Your task to perform on an android device: delete location history Image 0: 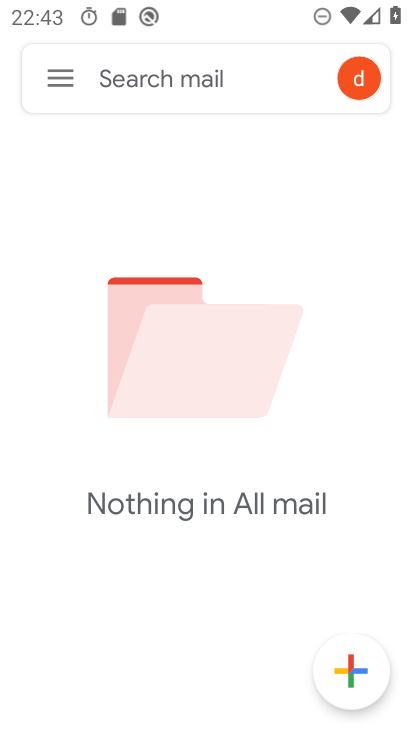
Step 0: press home button
Your task to perform on an android device: delete location history Image 1: 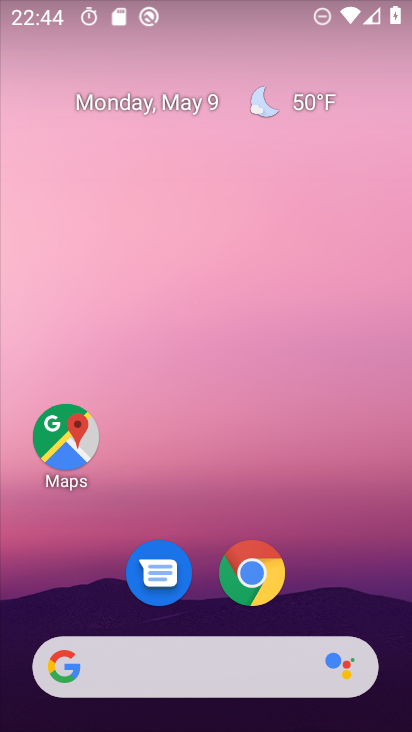
Step 1: drag from (320, 543) to (334, 51)
Your task to perform on an android device: delete location history Image 2: 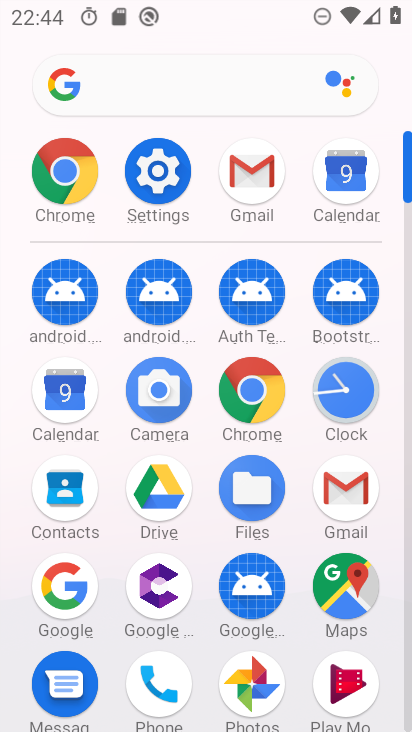
Step 2: click (365, 562)
Your task to perform on an android device: delete location history Image 3: 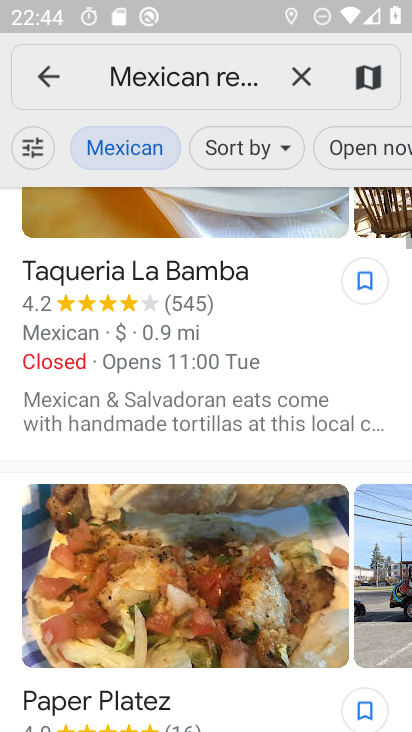
Step 3: click (44, 73)
Your task to perform on an android device: delete location history Image 4: 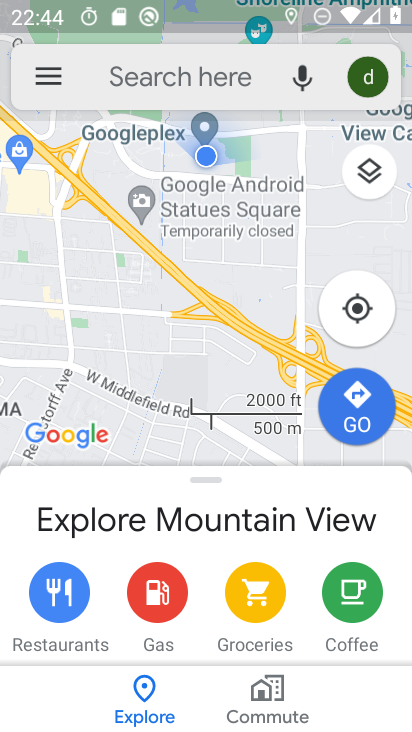
Step 4: click (46, 73)
Your task to perform on an android device: delete location history Image 5: 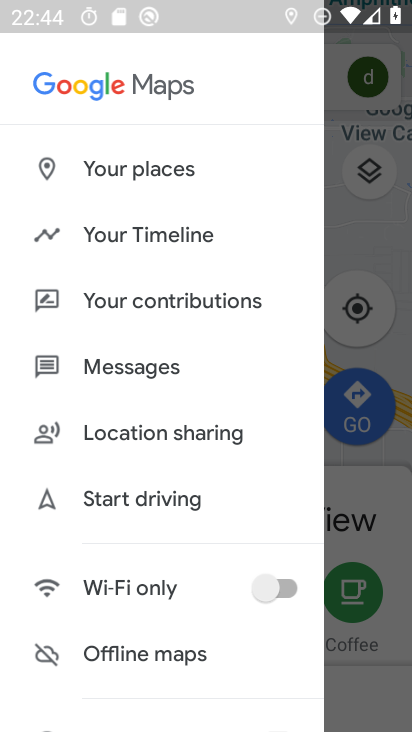
Step 5: drag from (200, 549) to (238, 63)
Your task to perform on an android device: delete location history Image 6: 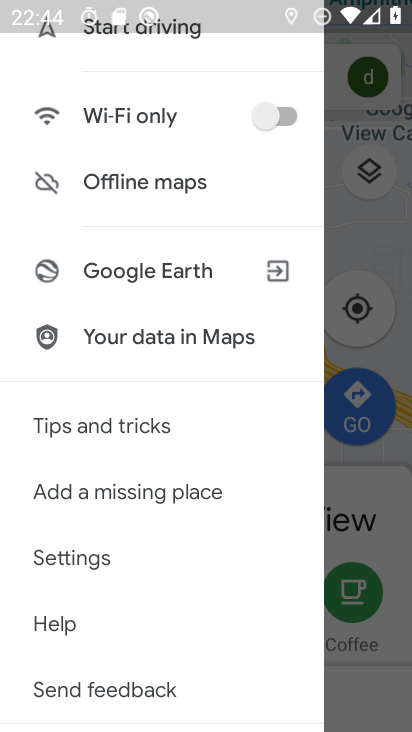
Step 6: click (100, 558)
Your task to perform on an android device: delete location history Image 7: 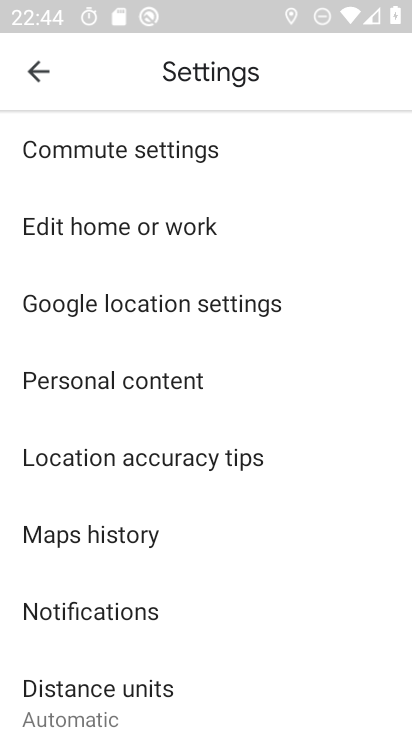
Step 7: click (143, 531)
Your task to perform on an android device: delete location history Image 8: 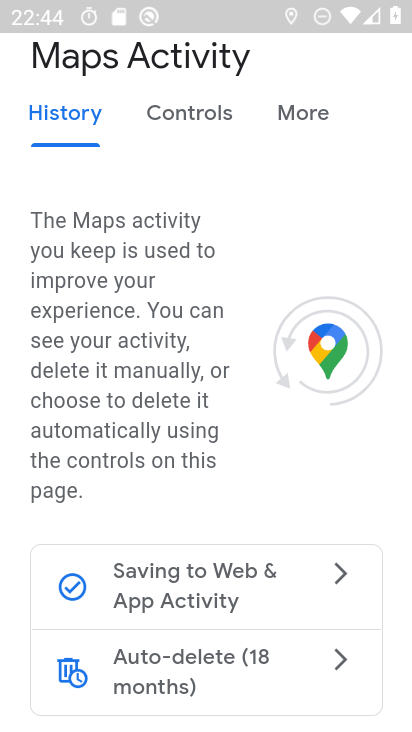
Step 8: drag from (289, 565) to (244, 140)
Your task to perform on an android device: delete location history Image 9: 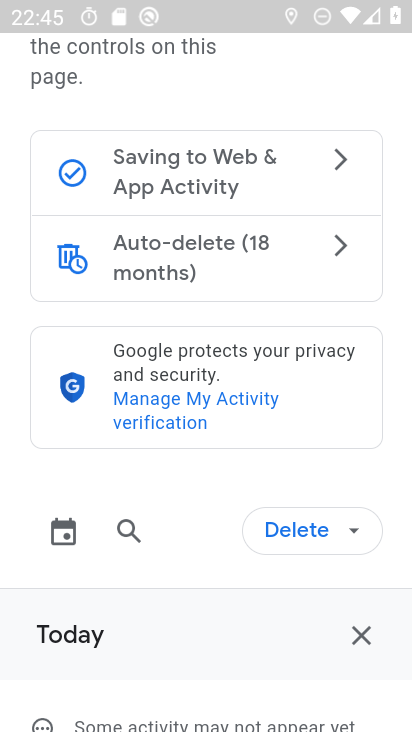
Step 9: click (324, 541)
Your task to perform on an android device: delete location history Image 10: 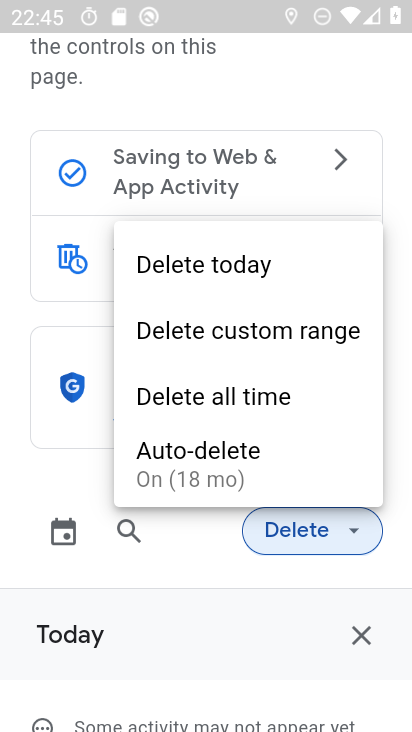
Step 10: click (371, 523)
Your task to perform on an android device: delete location history Image 11: 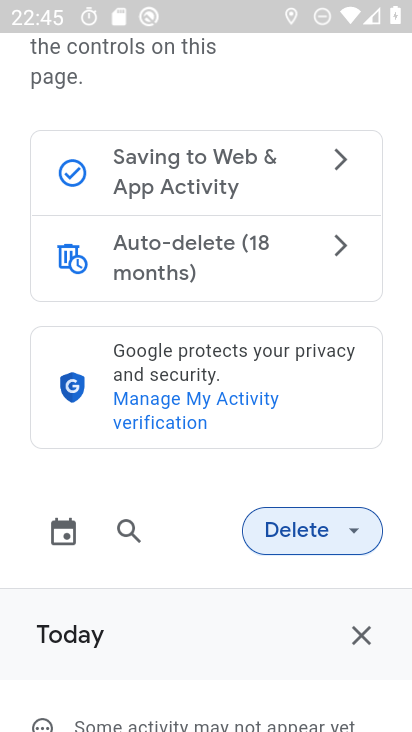
Step 11: click (330, 517)
Your task to perform on an android device: delete location history Image 12: 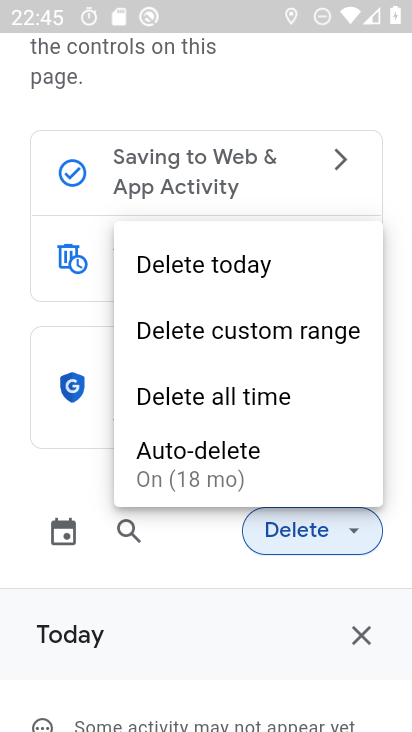
Step 12: click (284, 408)
Your task to perform on an android device: delete location history Image 13: 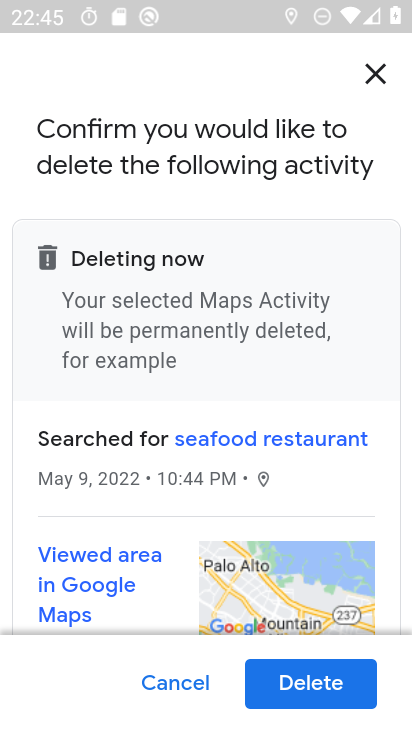
Step 13: click (326, 694)
Your task to perform on an android device: delete location history Image 14: 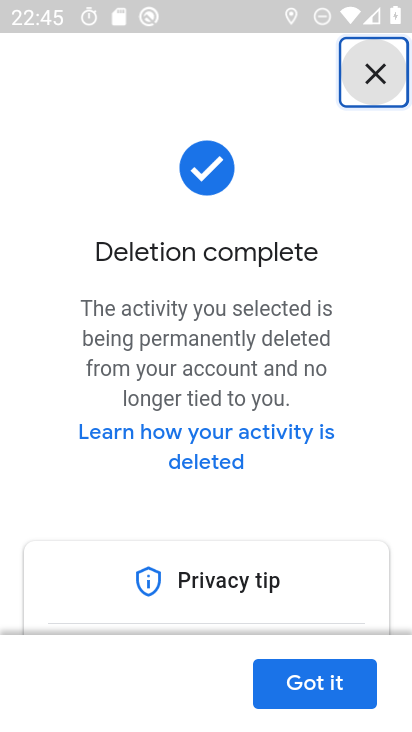
Step 14: task complete